Your task to perform on an android device: Open display settings Image 0: 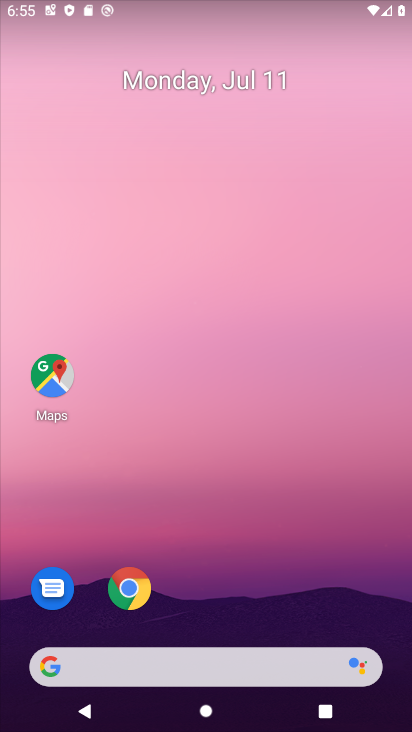
Step 0: drag from (382, 626) to (282, 161)
Your task to perform on an android device: Open display settings Image 1: 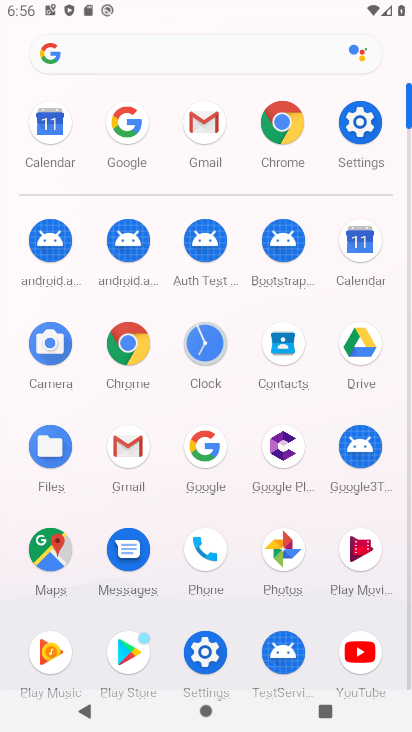
Step 1: click (368, 117)
Your task to perform on an android device: Open display settings Image 2: 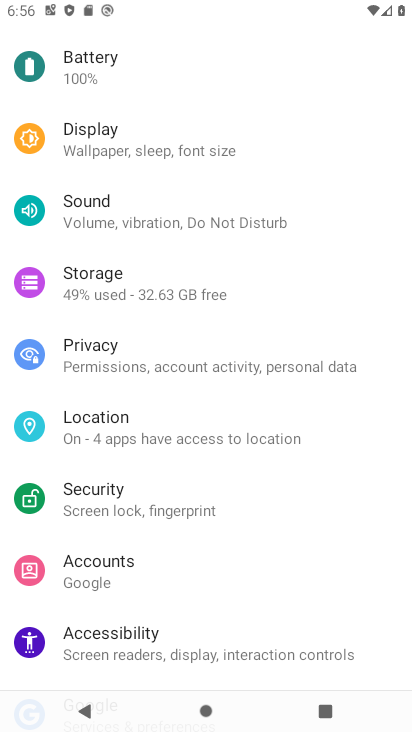
Step 2: click (79, 137)
Your task to perform on an android device: Open display settings Image 3: 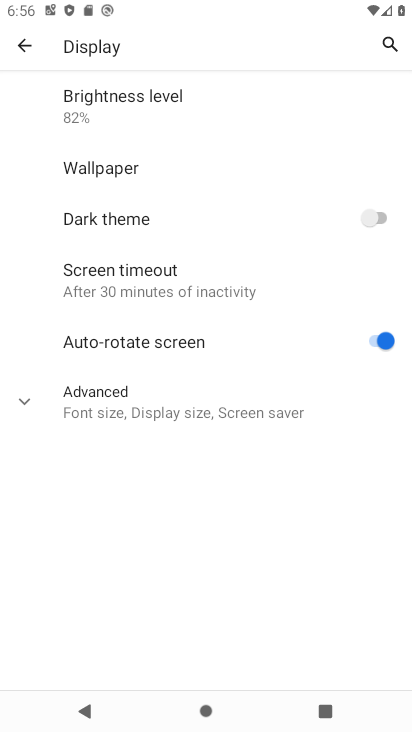
Step 3: task complete